Your task to perform on an android device: turn off location Image 0: 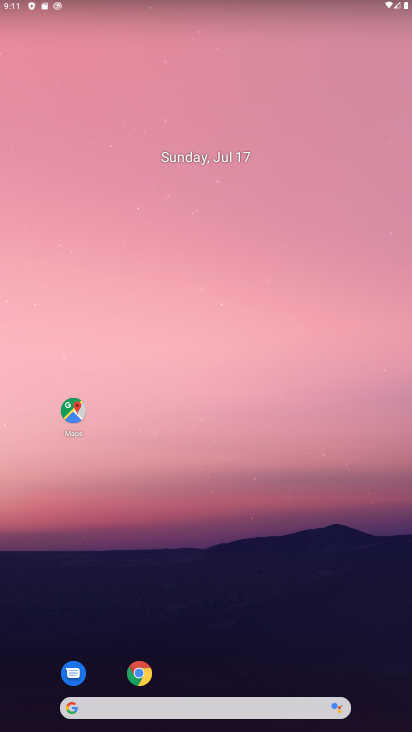
Step 0: drag from (309, 686) to (266, 75)
Your task to perform on an android device: turn off location Image 1: 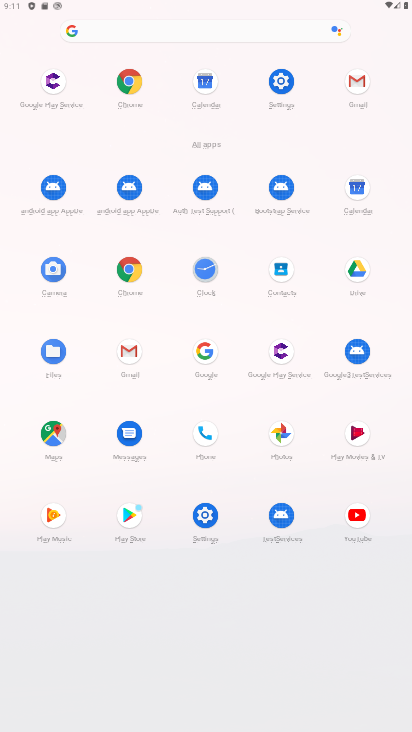
Step 1: click (288, 86)
Your task to perform on an android device: turn off location Image 2: 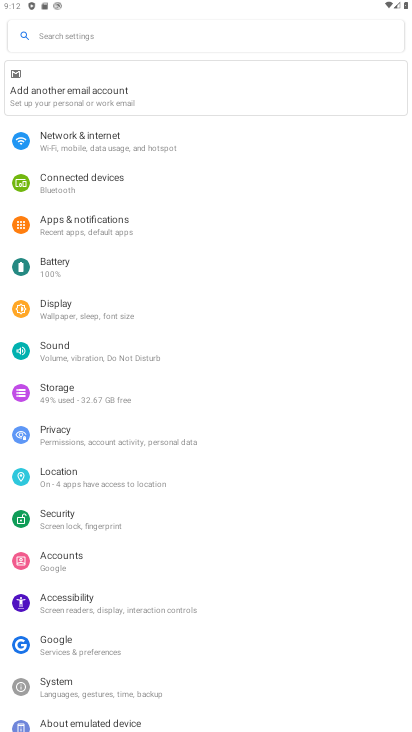
Step 2: click (86, 476)
Your task to perform on an android device: turn off location Image 3: 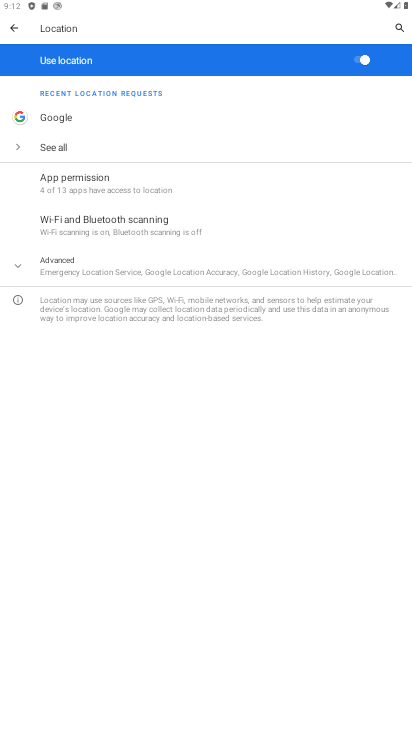
Step 3: click (372, 59)
Your task to perform on an android device: turn off location Image 4: 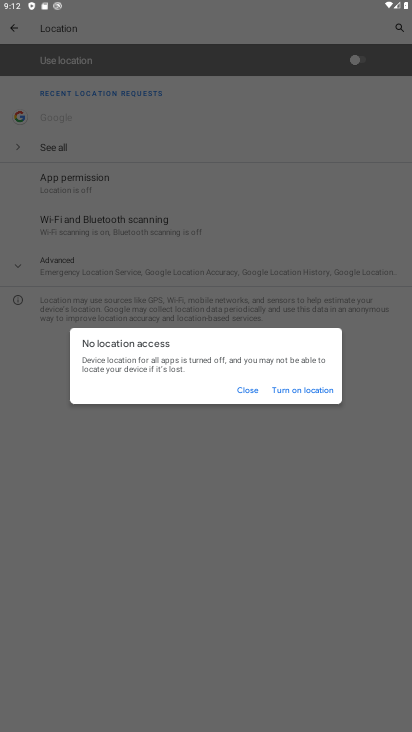
Step 4: task complete